Your task to perform on an android device: Show me the best rated 4K TV on Walmart. Image 0: 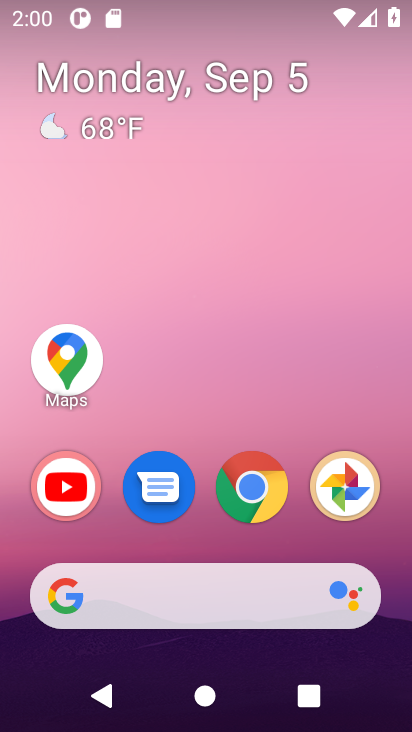
Step 0: click (251, 488)
Your task to perform on an android device: Show me the best rated 4K TV on Walmart. Image 1: 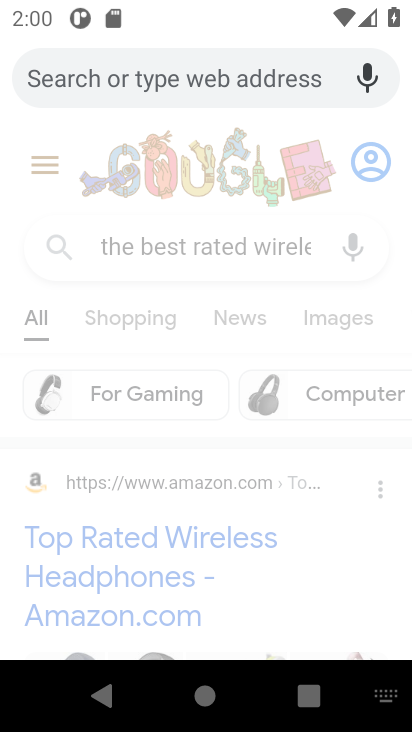
Step 1: type "the best rated 4K TV on Walmart."
Your task to perform on an android device: Show me the best rated 4K TV on Walmart. Image 2: 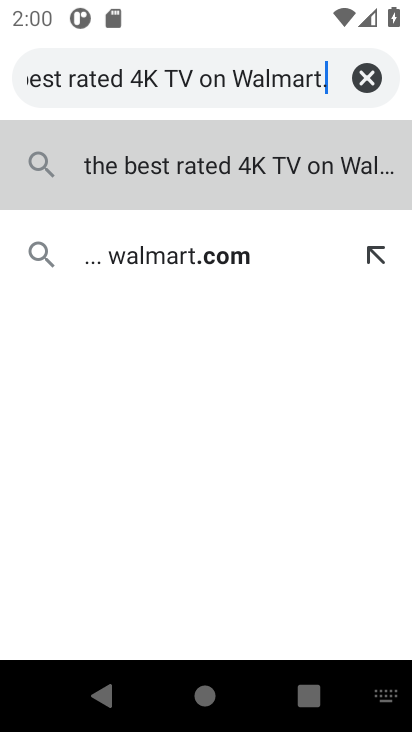
Step 2: click (256, 170)
Your task to perform on an android device: Show me the best rated 4K TV on Walmart. Image 3: 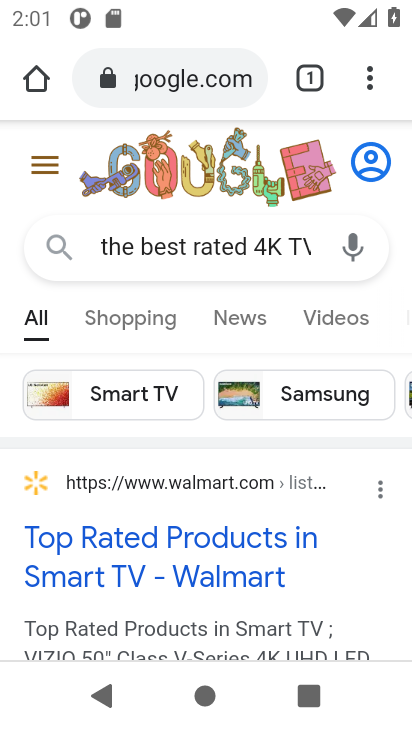
Step 3: task complete